Your task to perform on an android device: Open Reddit.com Image 0: 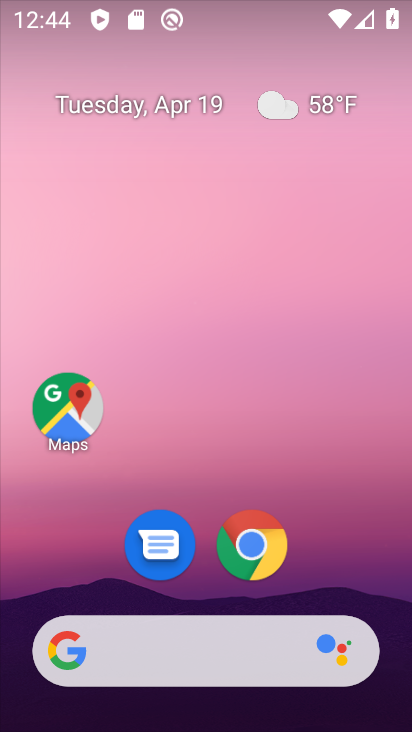
Step 0: drag from (212, 575) to (253, 16)
Your task to perform on an android device: Open Reddit.com Image 1: 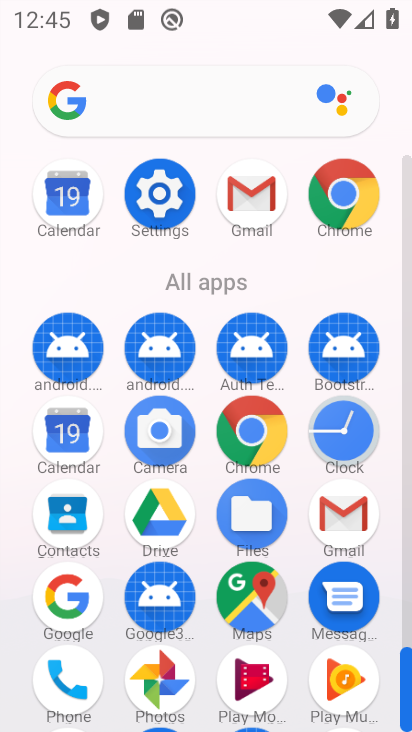
Step 1: click (358, 195)
Your task to perform on an android device: Open Reddit.com Image 2: 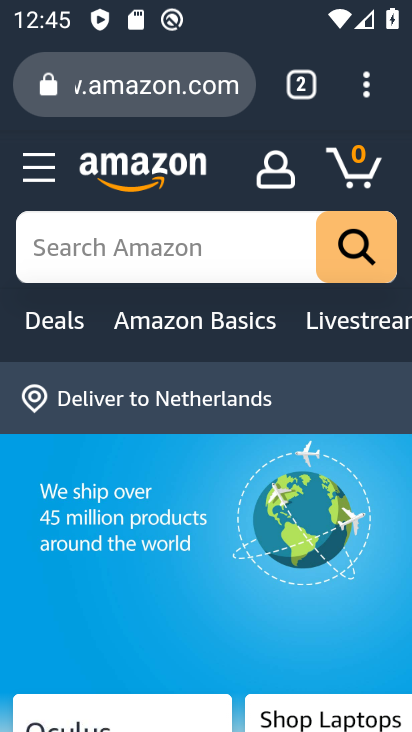
Step 2: click (292, 74)
Your task to perform on an android device: Open Reddit.com Image 3: 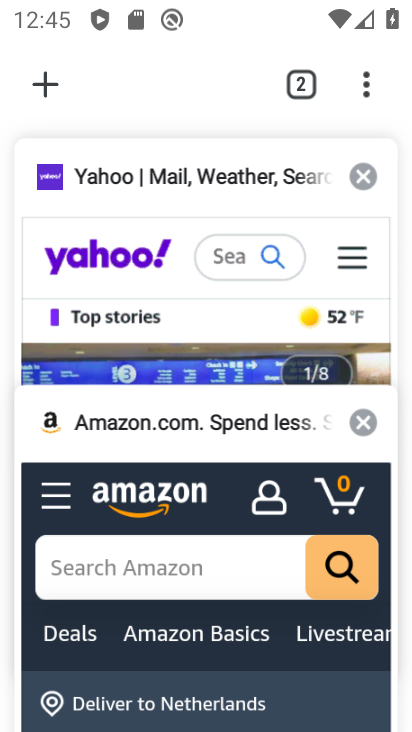
Step 3: click (45, 76)
Your task to perform on an android device: Open Reddit.com Image 4: 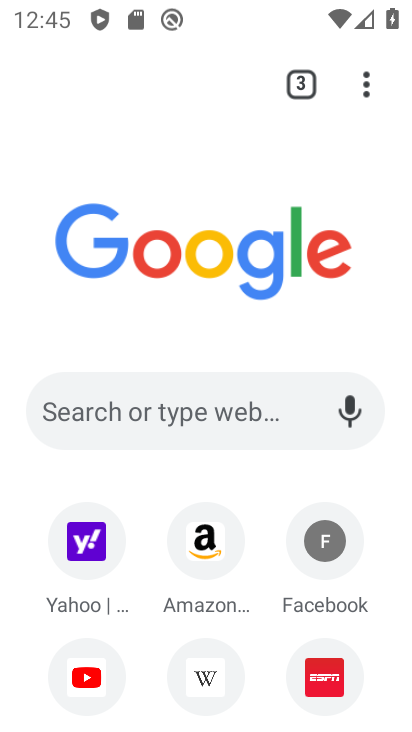
Step 4: click (170, 402)
Your task to perform on an android device: Open Reddit.com Image 5: 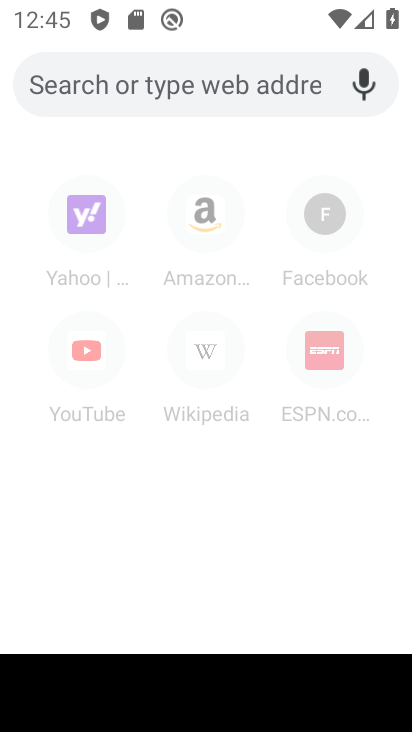
Step 5: type "reddit.com"
Your task to perform on an android device: Open Reddit.com Image 6: 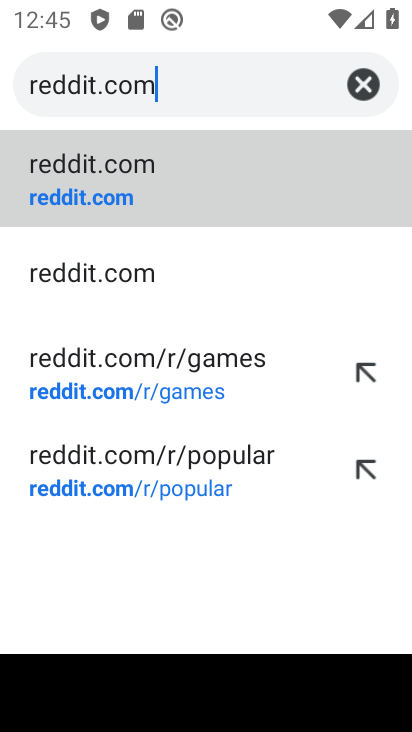
Step 6: click (246, 180)
Your task to perform on an android device: Open Reddit.com Image 7: 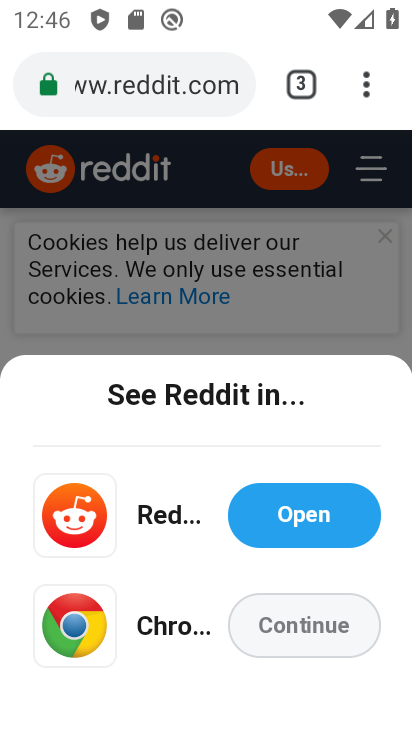
Step 7: task complete